Your task to perform on an android device: open app "NewsBreak: Local News & Alerts" Image 0: 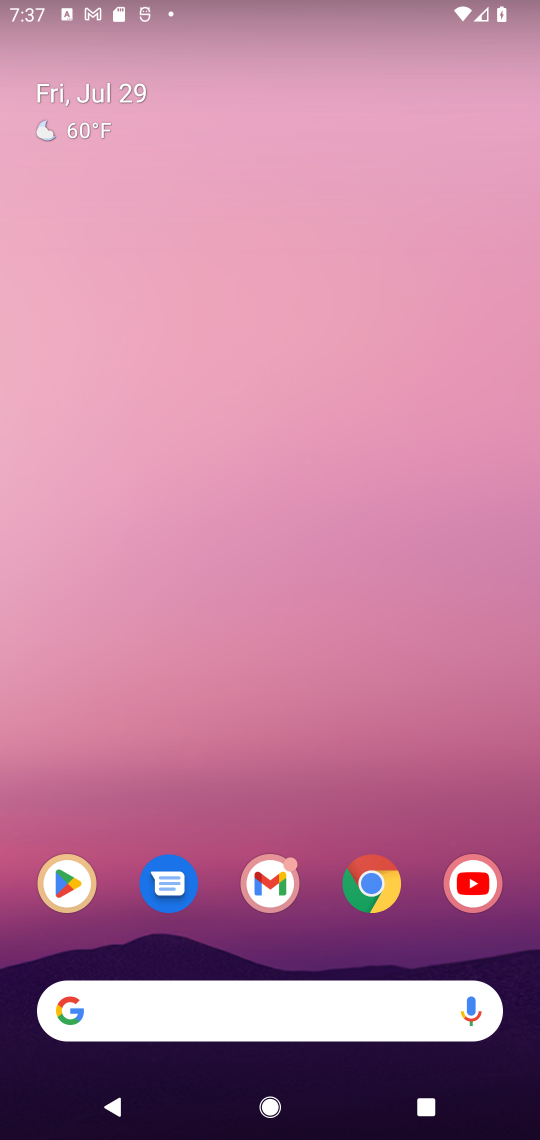
Step 0: click (39, 884)
Your task to perform on an android device: open app "NewsBreak: Local News & Alerts" Image 1: 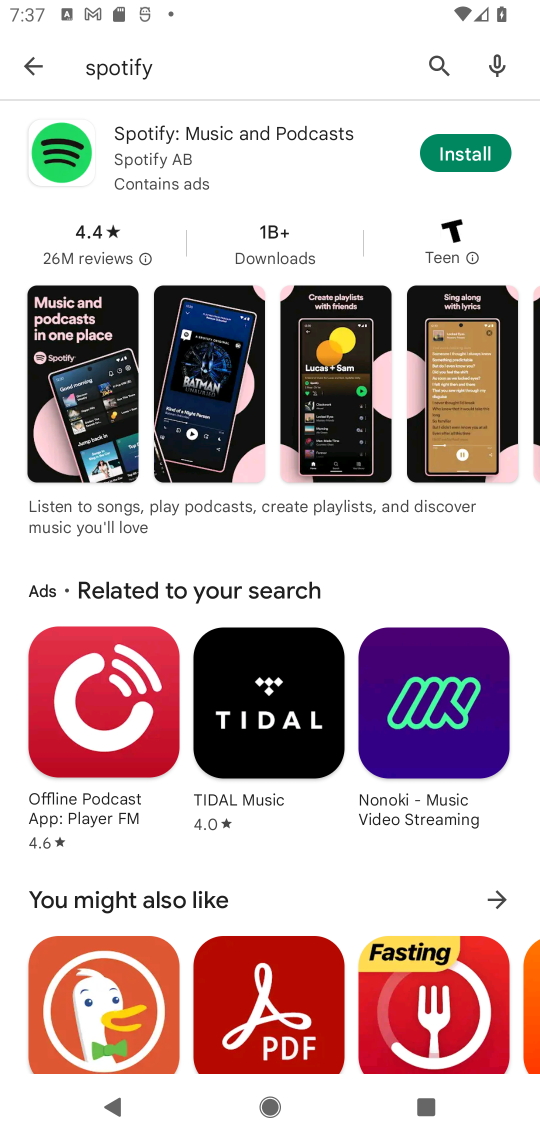
Step 1: click (438, 51)
Your task to perform on an android device: open app "NewsBreak: Local News & Alerts" Image 2: 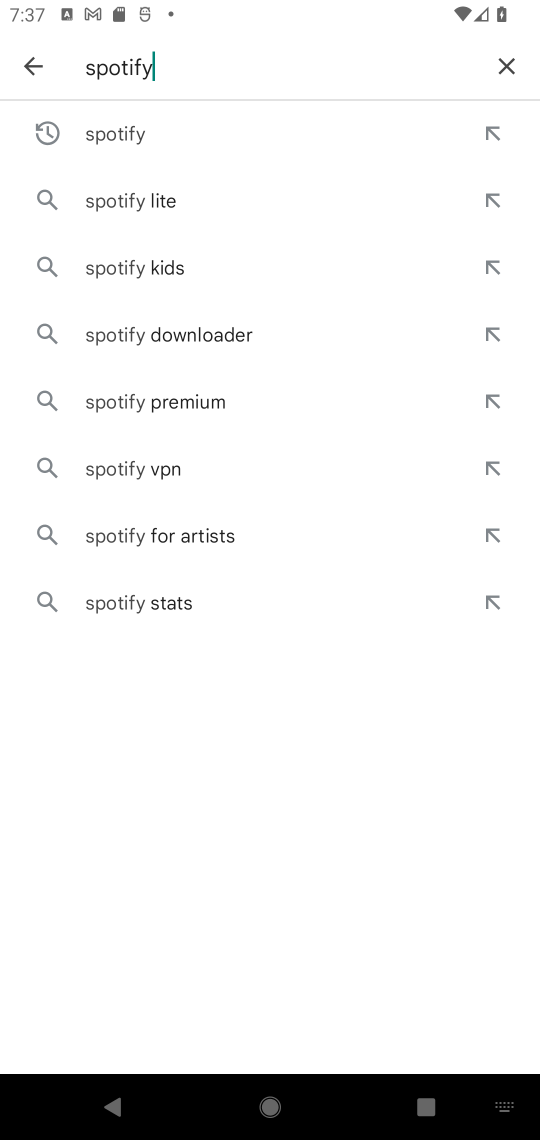
Step 2: click (505, 53)
Your task to perform on an android device: open app "NewsBreak: Local News & Alerts" Image 3: 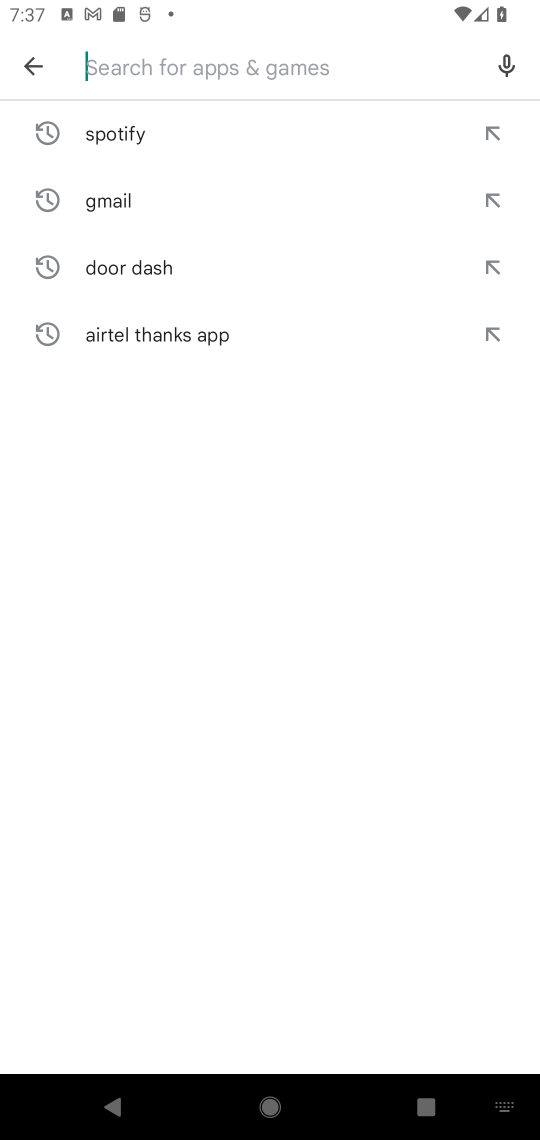
Step 3: click (190, 75)
Your task to perform on an android device: open app "NewsBreak: Local News & Alerts" Image 4: 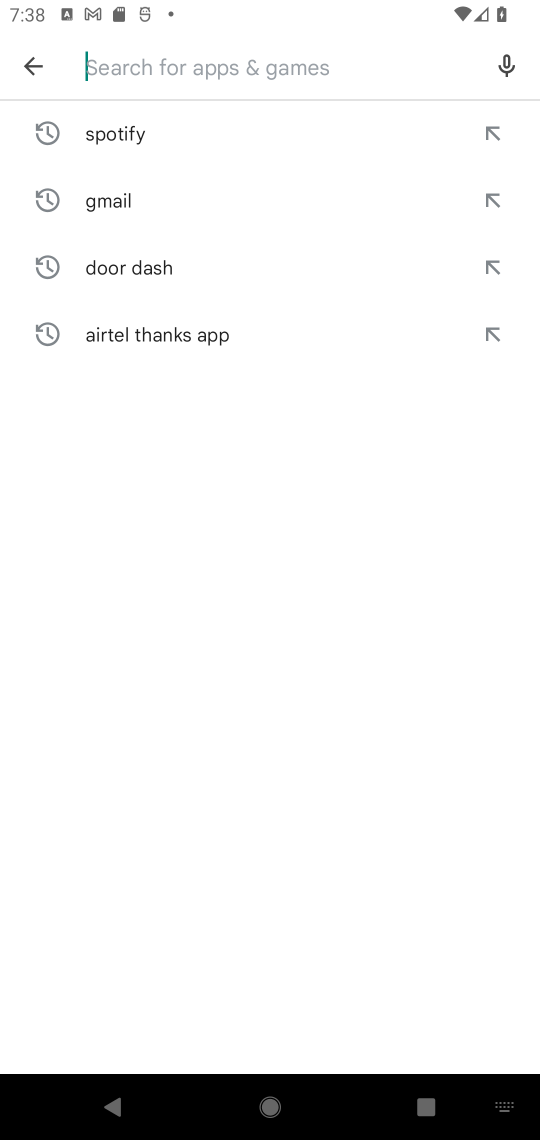
Step 4: type "newsbreak"
Your task to perform on an android device: open app "NewsBreak: Local News & Alerts" Image 5: 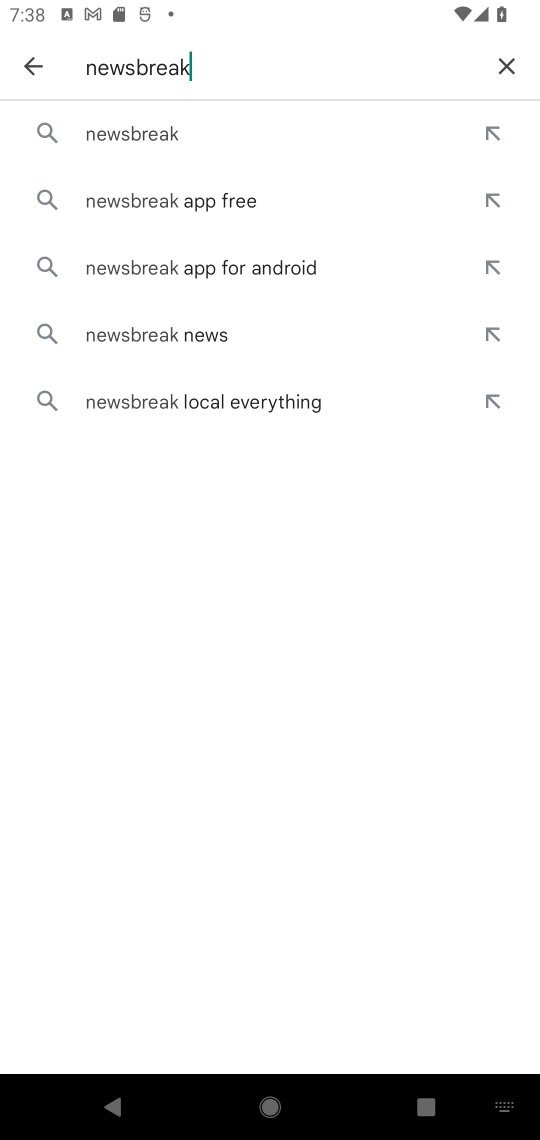
Step 5: click (163, 125)
Your task to perform on an android device: open app "NewsBreak: Local News & Alerts" Image 6: 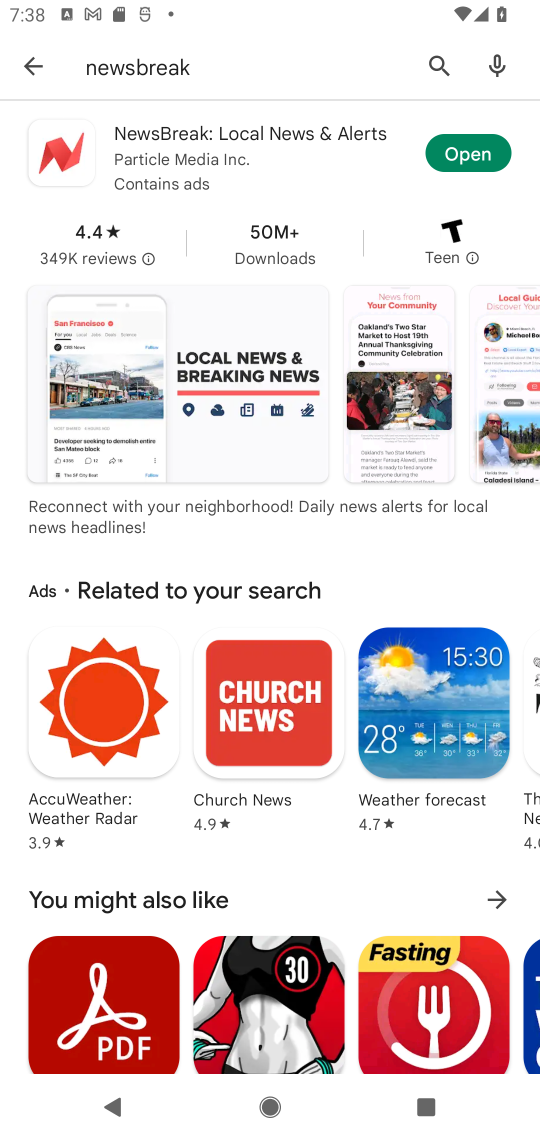
Step 6: click (473, 151)
Your task to perform on an android device: open app "NewsBreak: Local News & Alerts" Image 7: 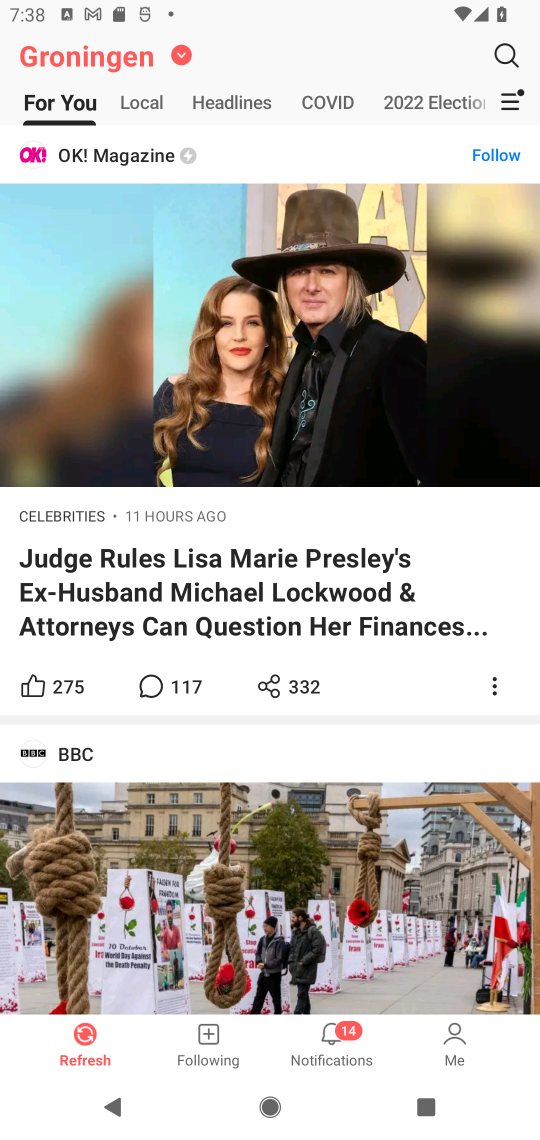
Step 7: task complete